Your task to perform on an android device: Open Wikipedia Image 0: 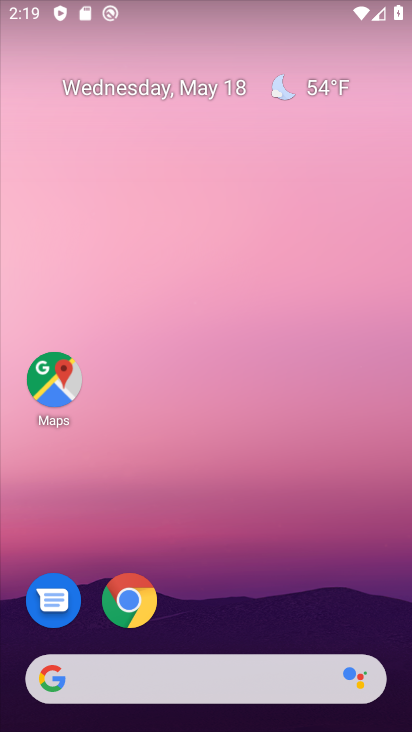
Step 0: press home button
Your task to perform on an android device: Open Wikipedia Image 1: 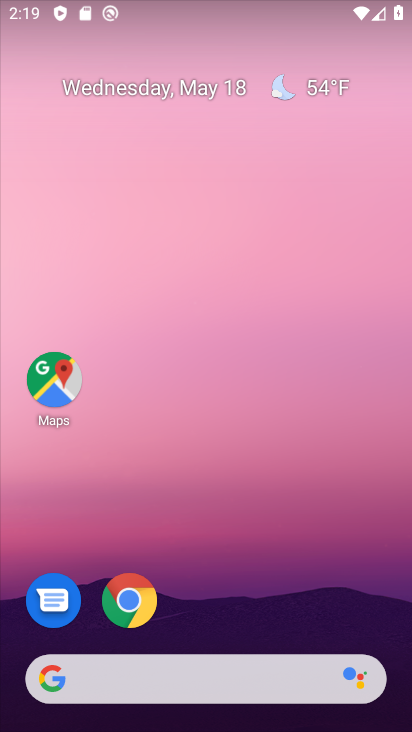
Step 1: drag from (199, 677) to (297, 266)
Your task to perform on an android device: Open Wikipedia Image 2: 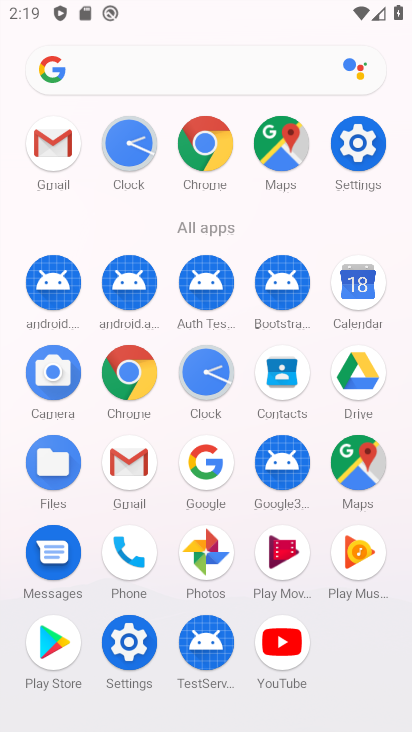
Step 2: click (196, 150)
Your task to perform on an android device: Open Wikipedia Image 3: 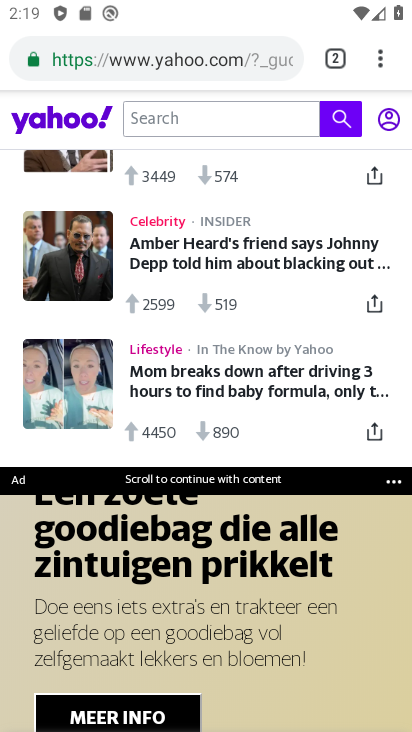
Step 3: drag from (379, 66) to (261, 112)
Your task to perform on an android device: Open Wikipedia Image 4: 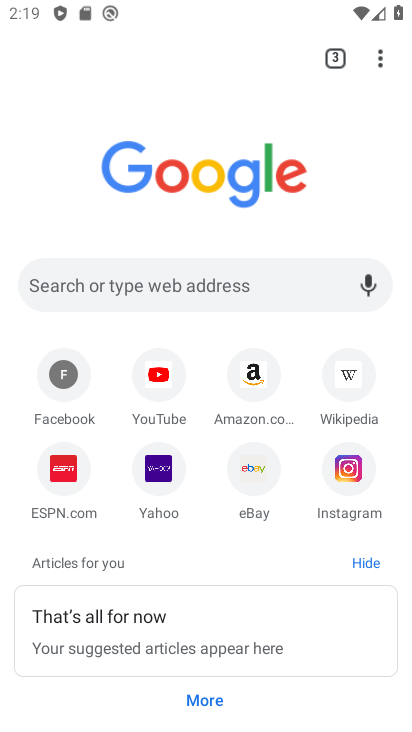
Step 4: click (339, 384)
Your task to perform on an android device: Open Wikipedia Image 5: 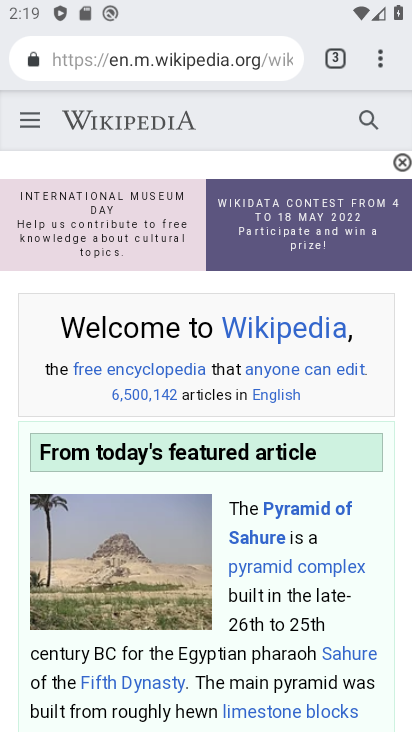
Step 5: task complete